Your task to perform on an android device: change the upload size in google photos Image 0: 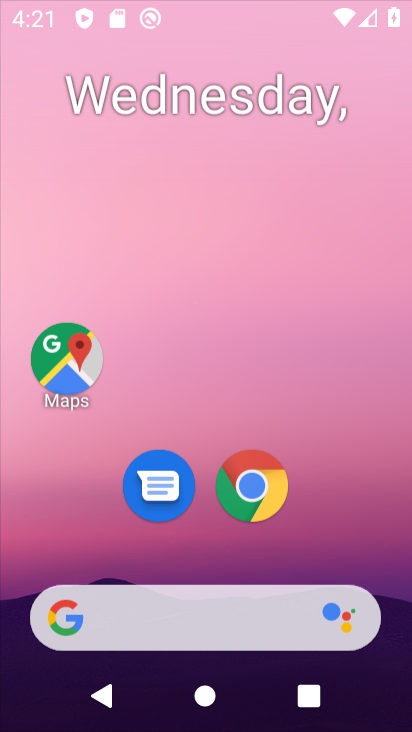
Step 0: press home button
Your task to perform on an android device: change the upload size in google photos Image 1: 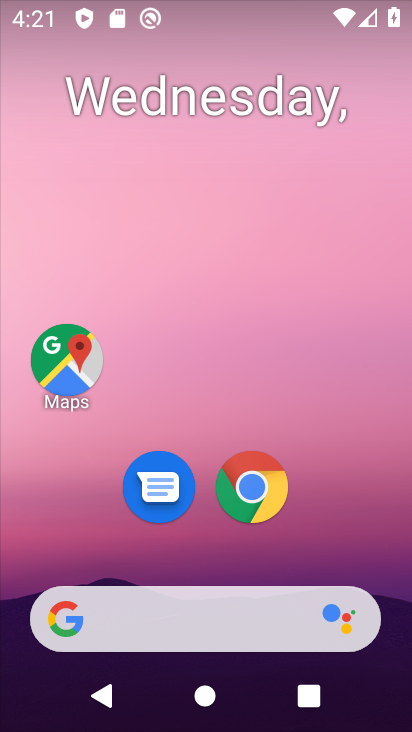
Step 1: drag from (208, 556) to (233, 139)
Your task to perform on an android device: change the upload size in google photos Image 2: 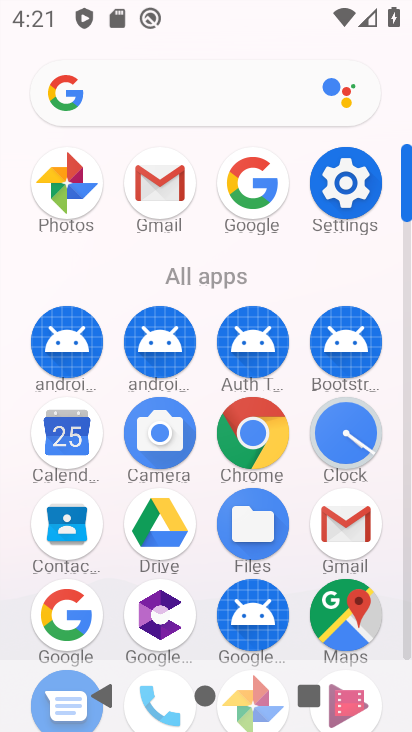
Step 2: drag from (208, 548) to (228, 210)
Your task to perform on an android device: change the upload size in google photos Image 3: 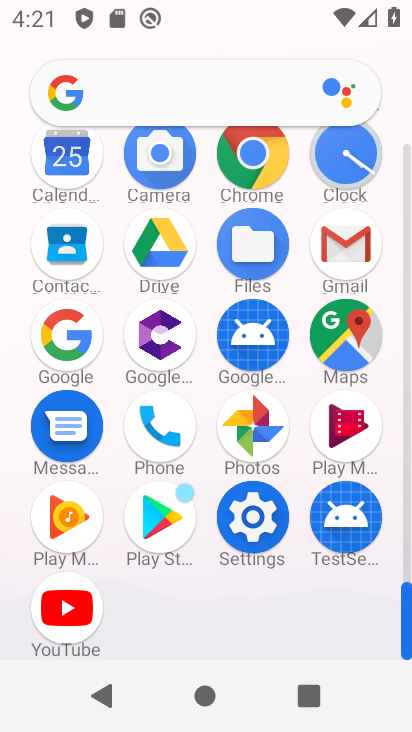
Step 3: click (247, 417)
Your task to perform on an android device: change the upload size in google photos Image 4: 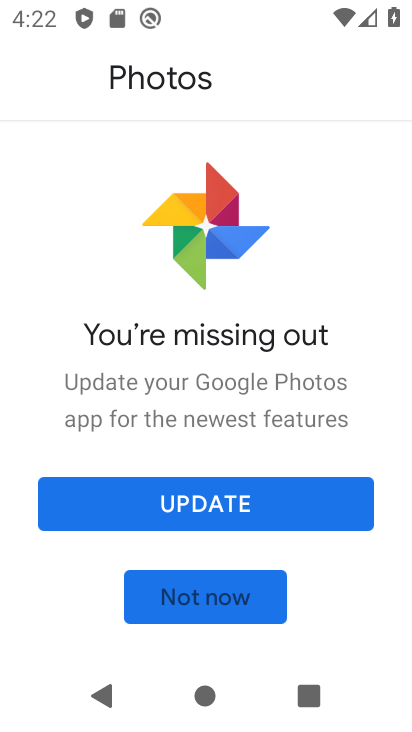
Step 4: click (204, 503)
Your task to perform on an android device: change the upload size in google photos Image 5: 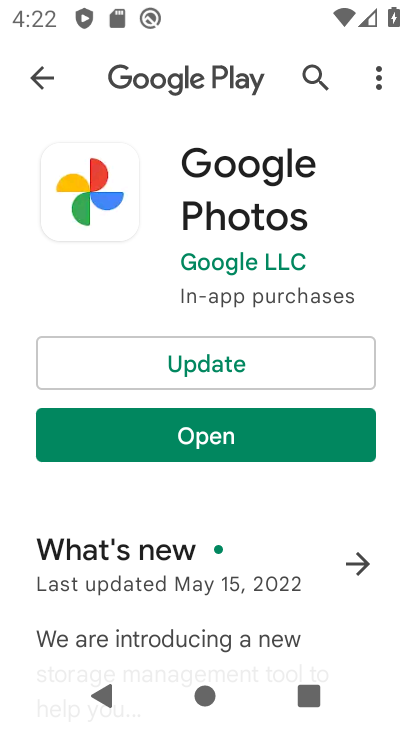
Step 5: click (210, 363)
Your task to perform on an android device: change the upload size in google photos Image 6: 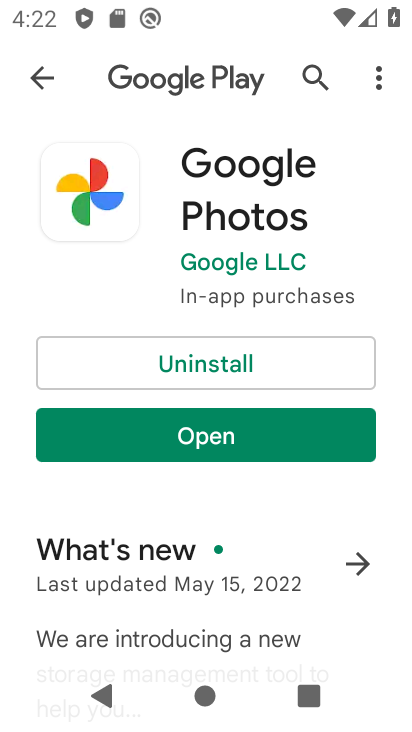
Step 6: click (214, 437)
Your task to perform on an android device: change the upload size in google photos Image 7: 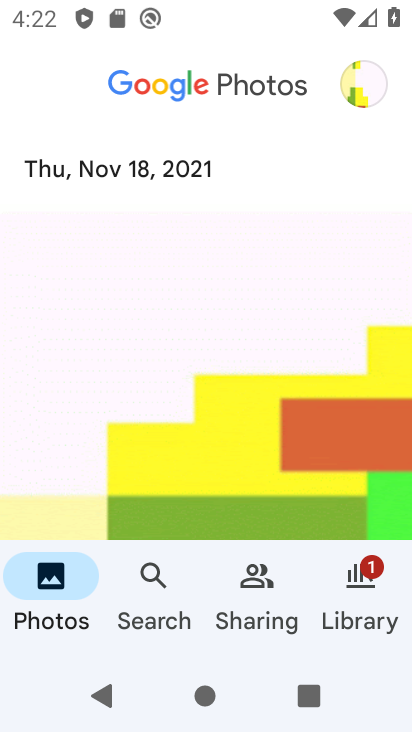
Step 7: click (355, 90)
Your task to perform on an android device: change the upload size in google photos Image 8: 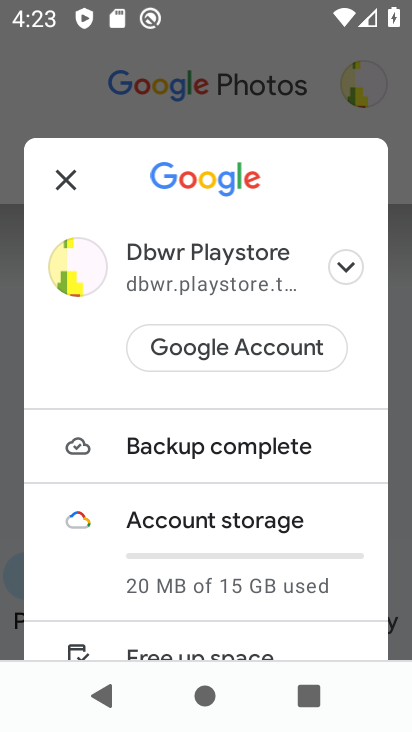
Step 8: click (203, 451)
Your task to perform on an android device: change the upload size in google photos Image 9: 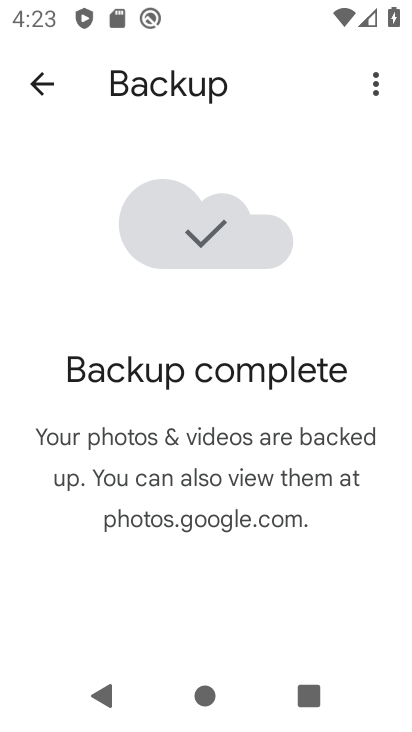
Step 9: click (373, 84)
Your task to perform on an android device: change the upload size in google photos Image 10: 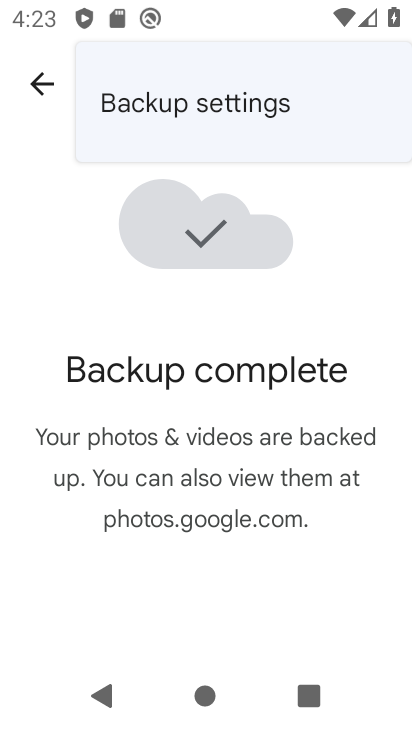
Step 10: click (185, 115)
Your task to perform on an android device: change the upload size in google photos Image 11: 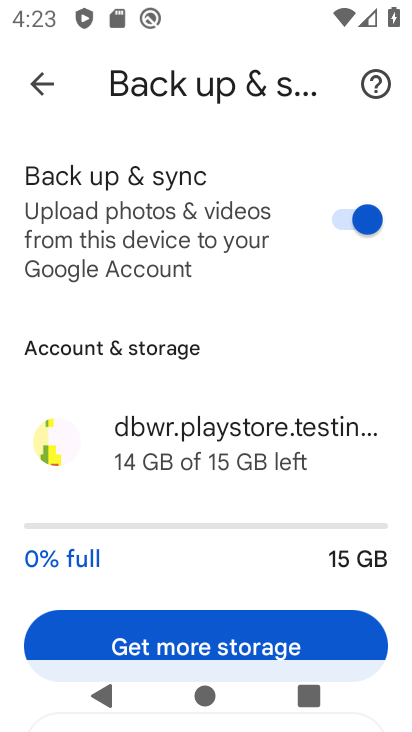
Step 11: drag from (201, 499) to (235, 150)
Your task to perform on an android device: change the upload size in google photos Image 12: 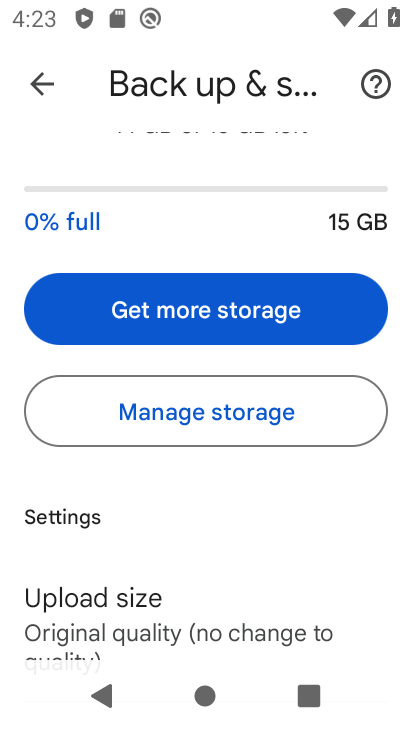
Step 12: click (199, 607)
Your task to perform on an android device: change the upload size in google photos Image 13: 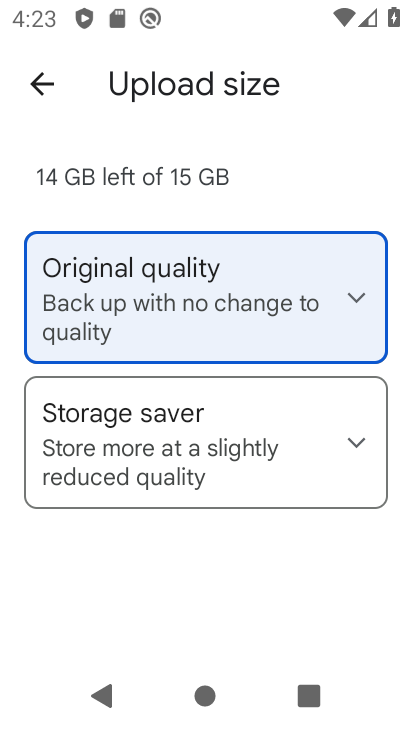
Step 13: click (176, 439)
Your task to perform on an android device: change the upload size in google photos Image 14: 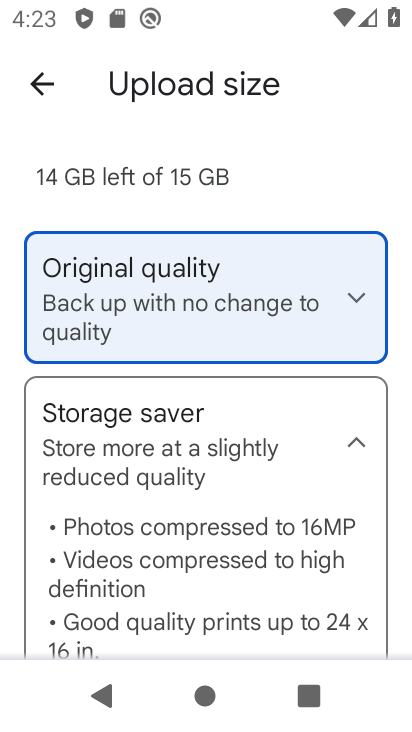
Step 14: drag from (205, 536) to (248, 241)
Your task to perform on an android device: change the upload size in google photos Image 15: 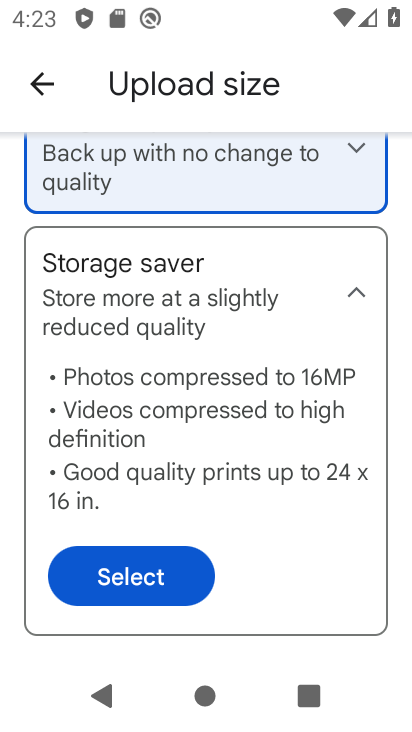
Step 15: click (149, 566)
Your task to perform on an android device: change the upload size in google photos Image 16: 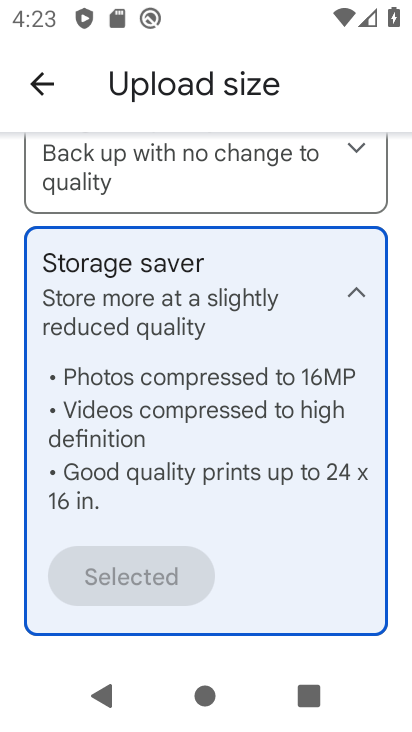
Step 16: task complete